Your task to perform on an android device: open wifi settings Image 0: 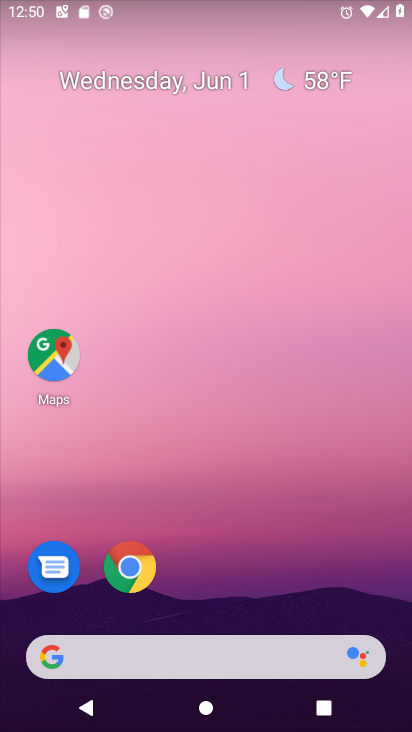
Step 0: drag from (233, 565) to (226, 64)
Your task to perform on an android device: open wifi settings Image 1: 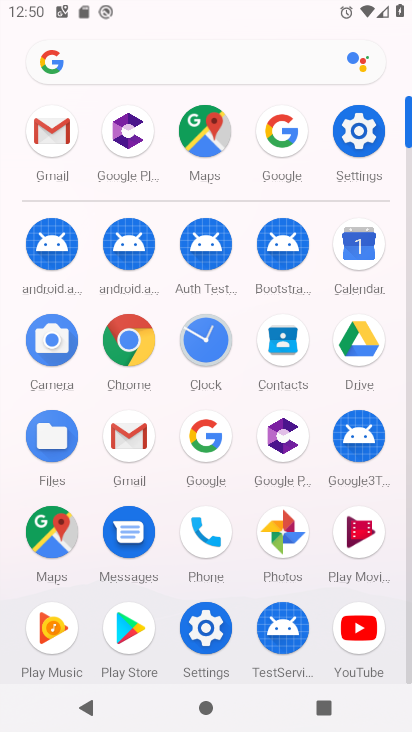
Step 1: click (368, 130)
Your task to perform on an android device: open wifi settings Image 2: 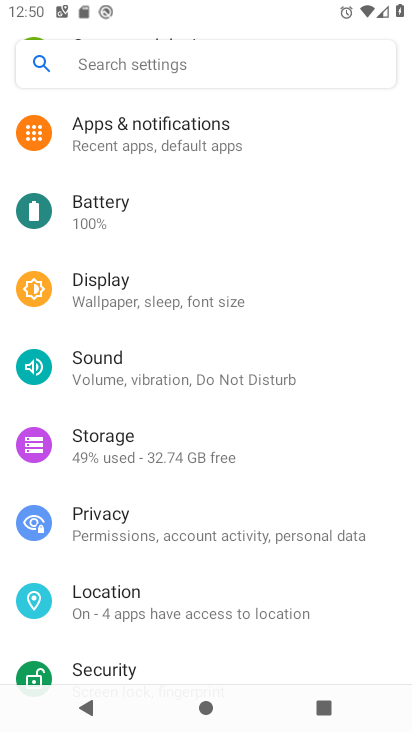
Step 2: drag from (156, 146) to (211, 515)
Your task to perform on an android device: open wifi settings Image 3: 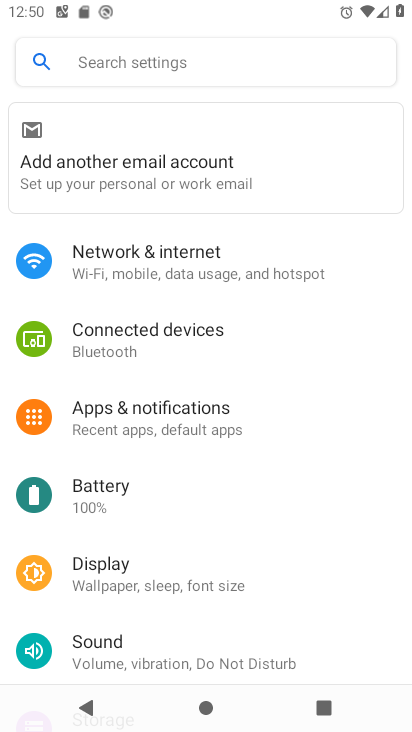
Step 3: click (155, 246)
Your task to perform on an android device: open wifi settings Image 4: 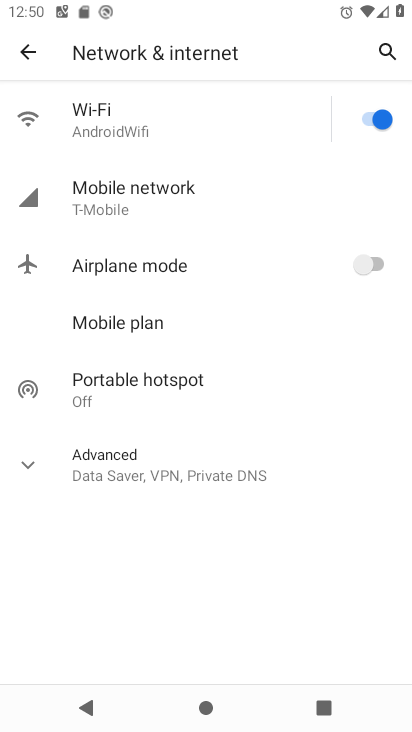
Step 4: click (141, 138)
Your task to perform on an android device: open wifi settings Image 5: 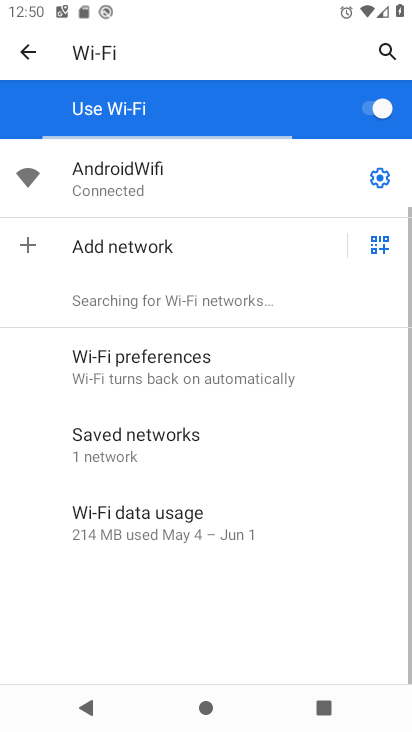
Step 5: click (153, 170)
Your task to perform on an android device: open wifi settings Image 6: 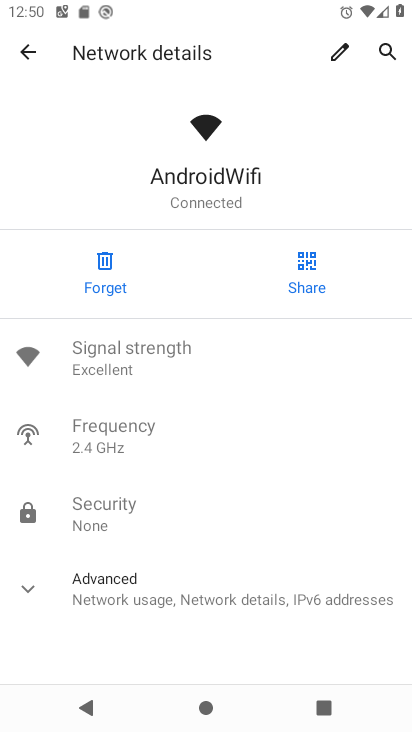
Step 6: task complete